Your task to perform on an android device: toggle sleep mode Image 0: 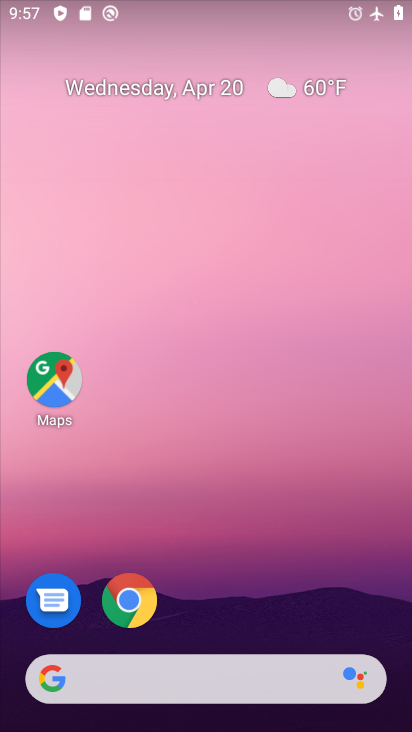
Step 0: drag from (235, 631) to (232, 2)
Your task to perform on an android device: toggle sleep mode Image 1: 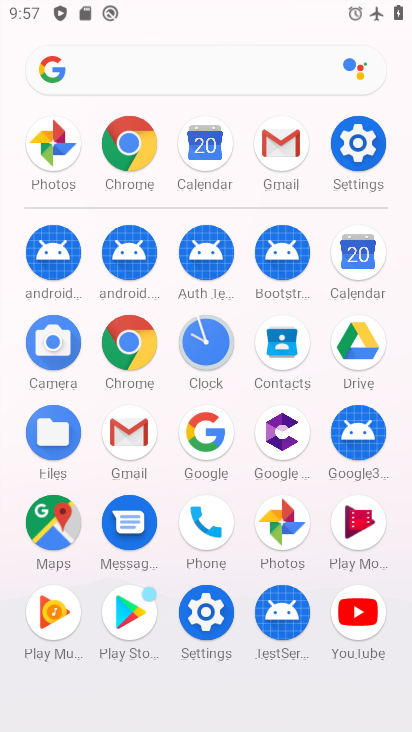
Step 1: click (339, 151)
Your task to perform on an android device: toggle sleep mode Image 2: 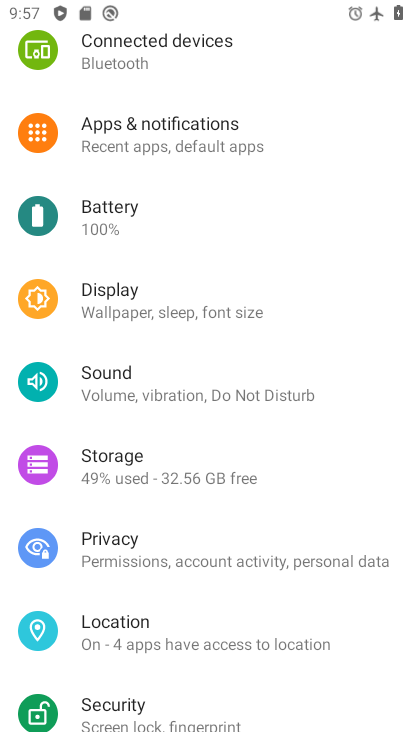
Step 2: click (130, 307)
Your task to perform on an android device: toggle sleep mode Image 3: 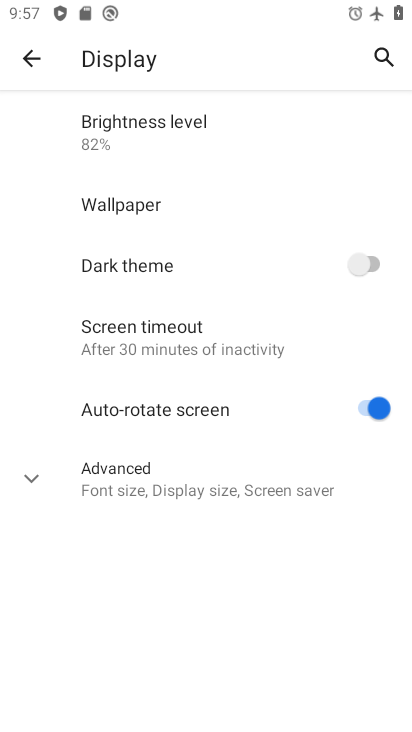
Step 3: click (152, 473)
Your task to perform on an android device: toggle sleep mode Image 4: 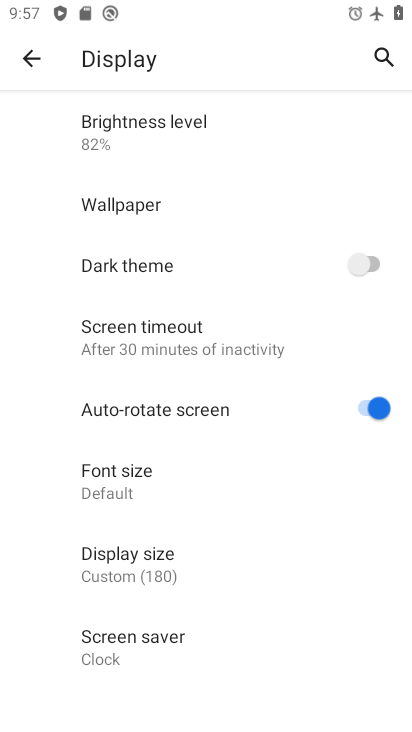
Step 4: task complete